Your task to perform on an android device: check android version Image 0: 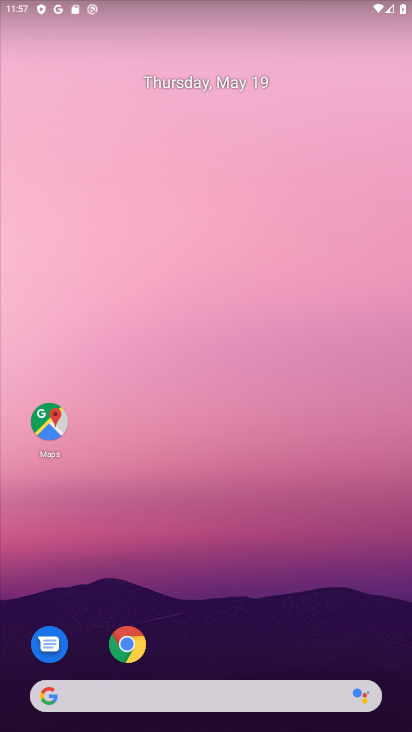
Step 0: drag from (241, 517) to (170, 39)
Your task to perform on an android device: check android version Image 1: 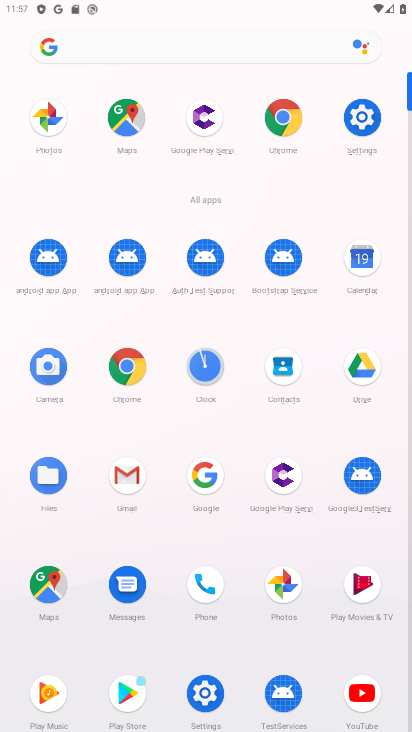
Step 1: click (364, 116)
Your task to perform on an android device: check android version Image 2: 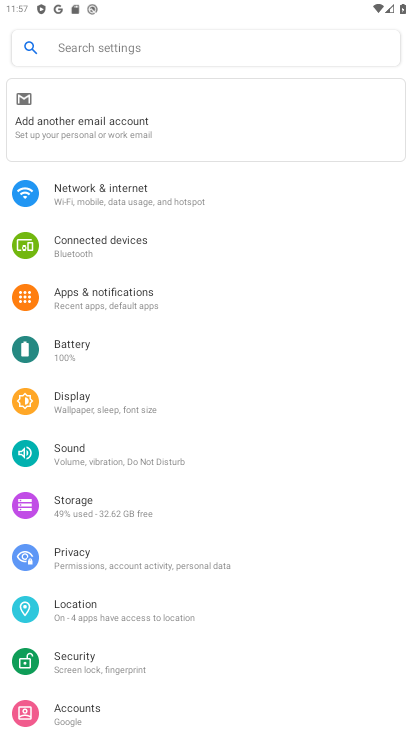
Step 2: drag from (214, 582) to (125, 161)
Your task to perform on an android device: check android version Image 3: 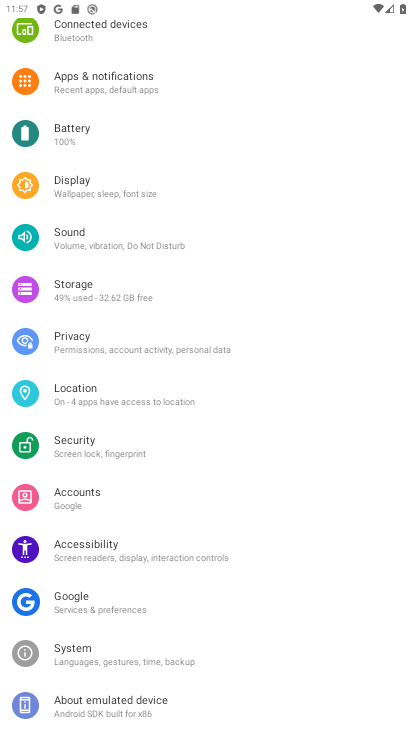
Step 3: click (97, 696)
Your task to perform on an android device: check android version Image 4: 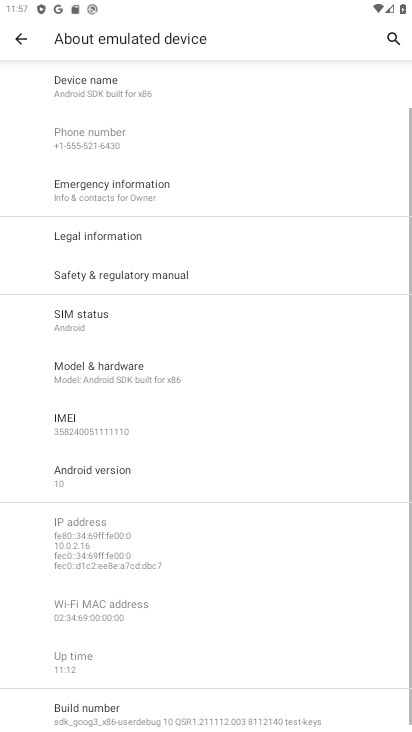
Step 4: task complete